Your task to perform on an android device: install app "YouTube Kids" Image 0: 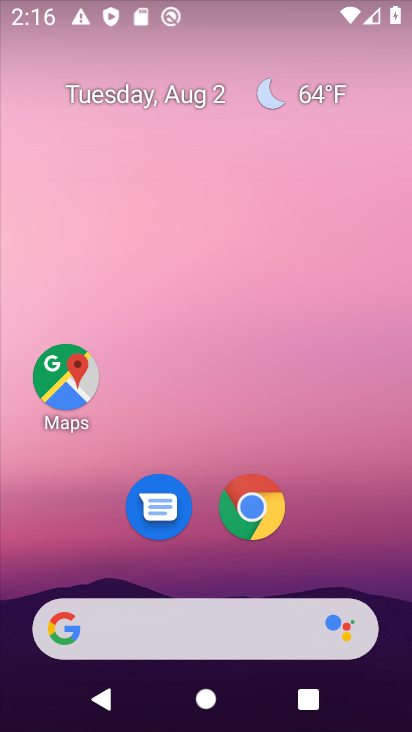
Step 0: drag from (195, 502) to (282, 6)
Your task to perform on an android device: install app "YouTube Kids" Image 1: 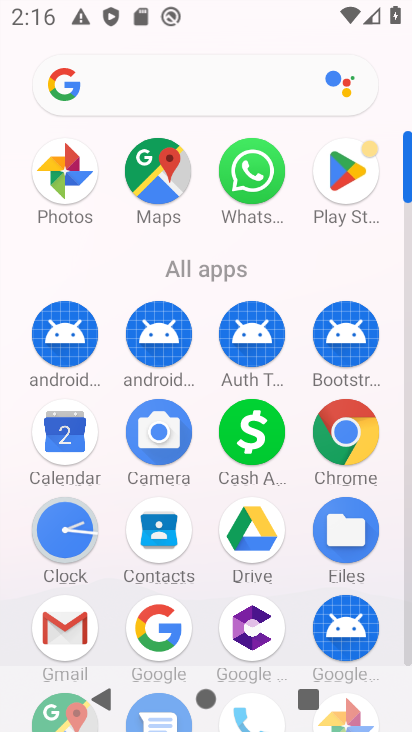
Step 1: click (356, 191)
Your task to perform on an android device: install app "YouTube Kids" Image 2: 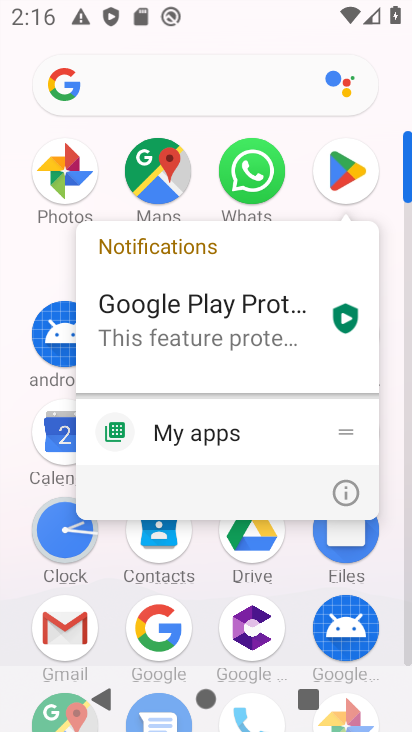
Step 2: click (343, 172)
Your task to perform on an android device: install app "YouTube Kids" Image 3: 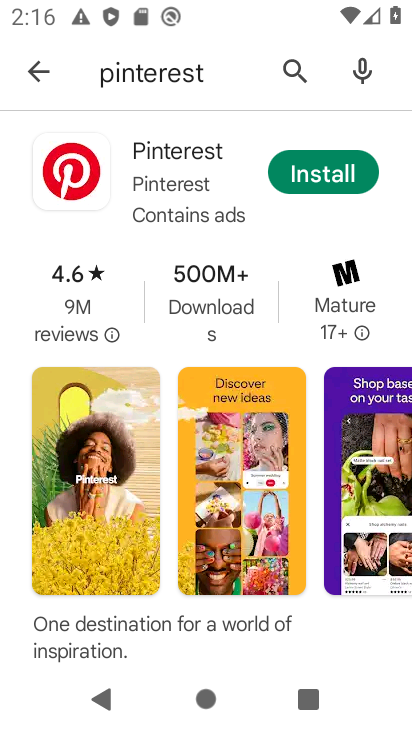
Step 3: click (187, 74)
Your task to perform on an android device: install app "YouTube Kids" Image 4: 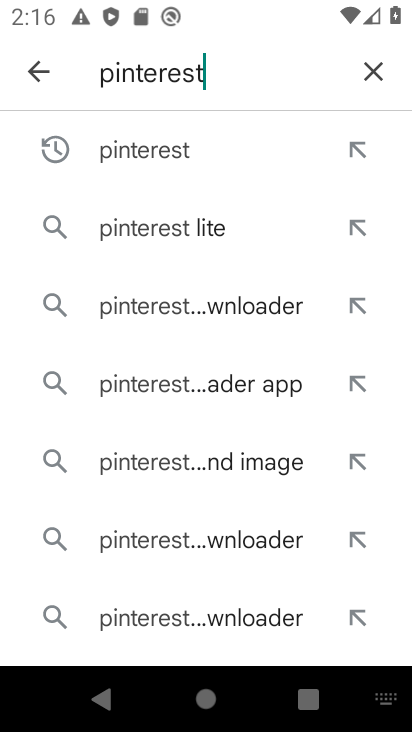
Step 4: click (380, 78)
Your task to perform on an android device: install app "YouTube Kids" Image 5: 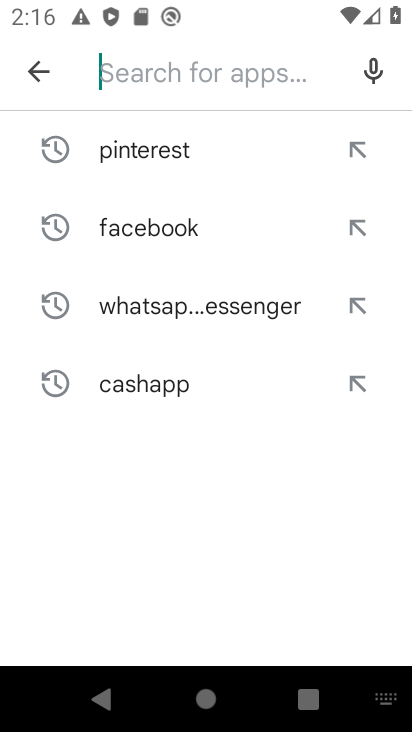
Step 5: type "youtube kids"
Your task to perform on an android device: install app "YouTube Kids" Image 6: 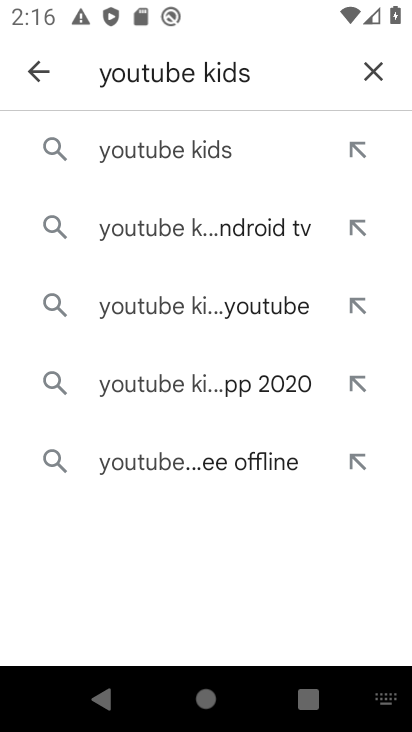
Step 6: click (148, 135)
Your task to perform on an android device: install app "YouTube Kids" Image 7: 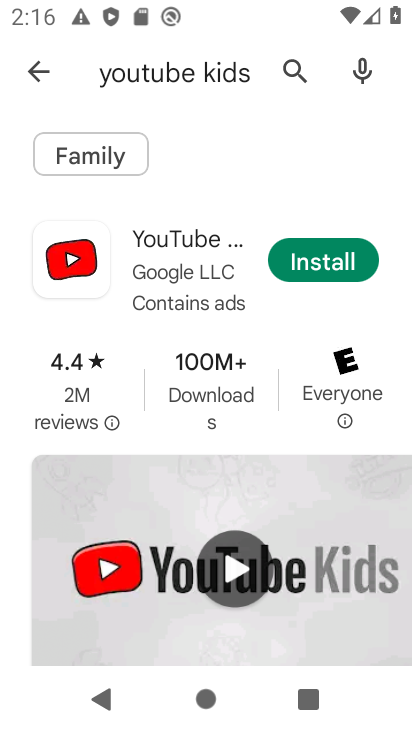
Step 7: click (337, 274)
Your task to perform on an android device: install app "YouTube Kids" Image 8: 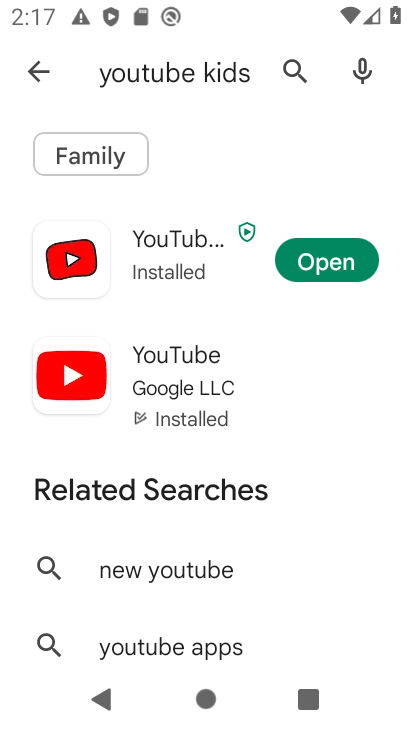
Step 8: click (316, 265)
Your task to perform on an android device: install app "YouTube Kids" Image 9: 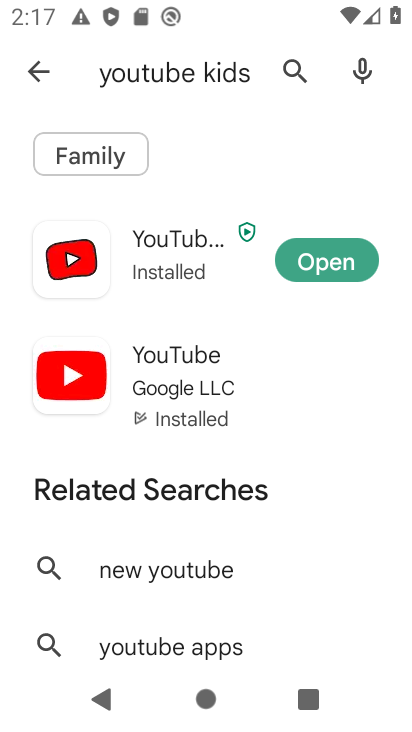
Step 9: task complete